Your task to perform on an android device: Open Wikipedia Image 0: 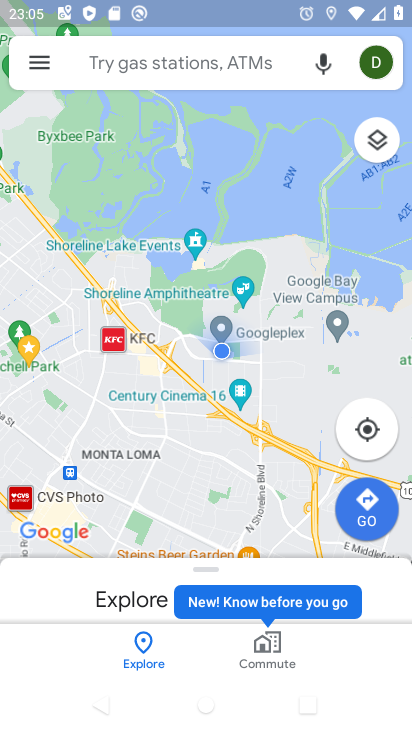
Step 0: press home button
Your task to perform on an android device: Open Wikipedia Image 1: 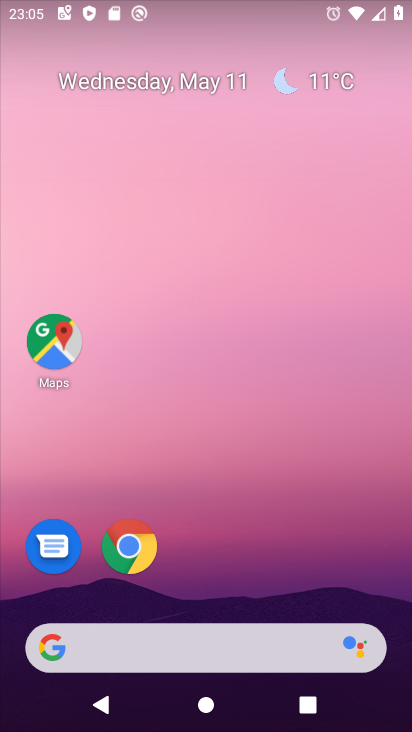
Step 1: click (130, 551)
Your task to perform on an android device: Open Wikipedia Image 2: 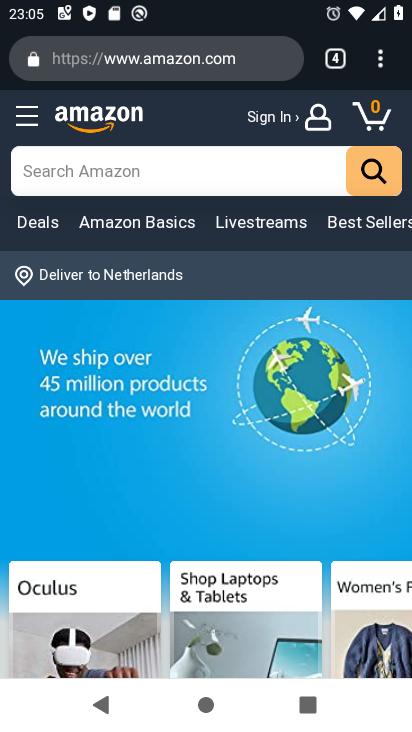
Step 2: click (152, 53)
Your task to perform on an android device: Open Wikipedia Image 3: 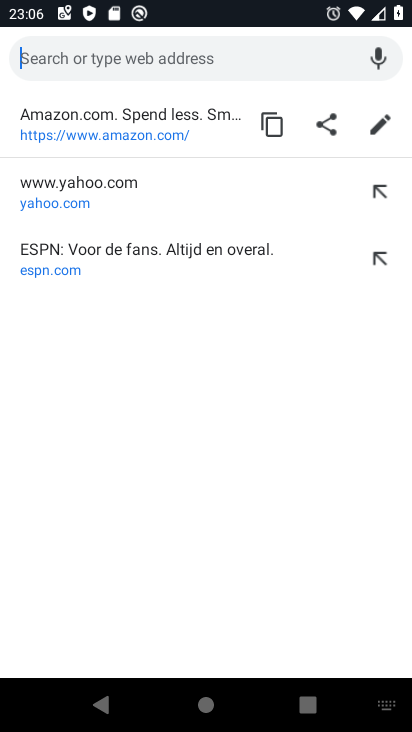
Step 3: type "wikipedia"
Your task to perform on an android device: Open Wikipedia Image 4: 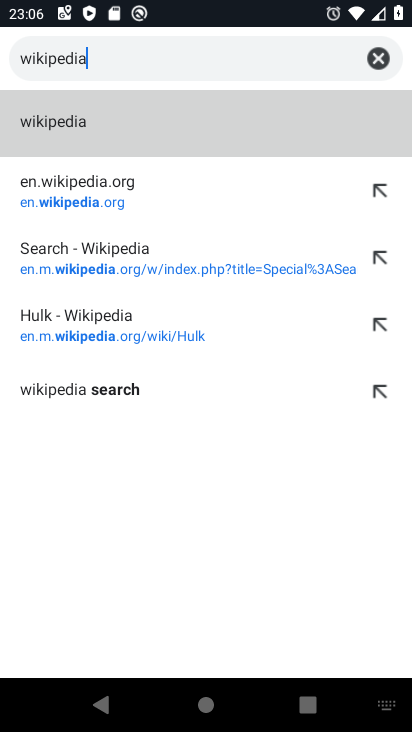
Step 4: click (50, 120)
Your task to perform on an android device: Open Wikipedia Image 5: 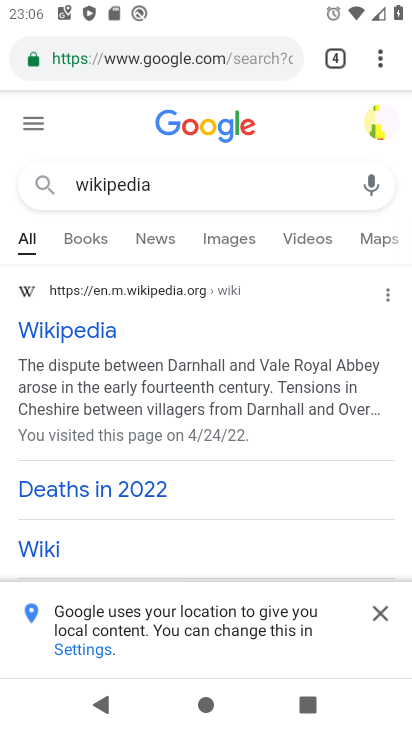
Step 5: click (62, 335)
Your task to perform on an android device: Open Wikipedia Image 6: 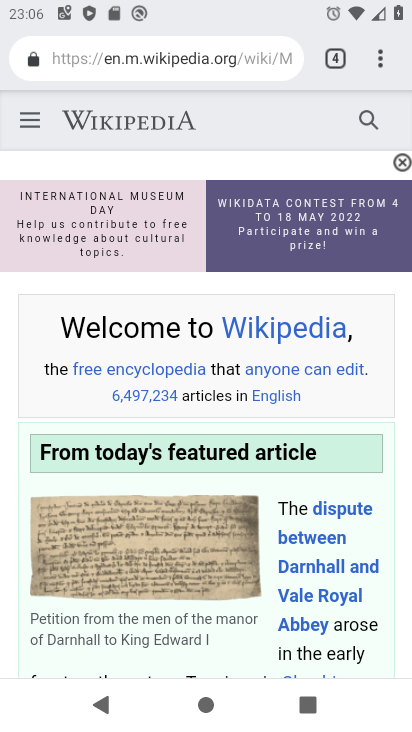
Step 6: task complete